Your task to perform on an android device: turn notification dots on Image 0: 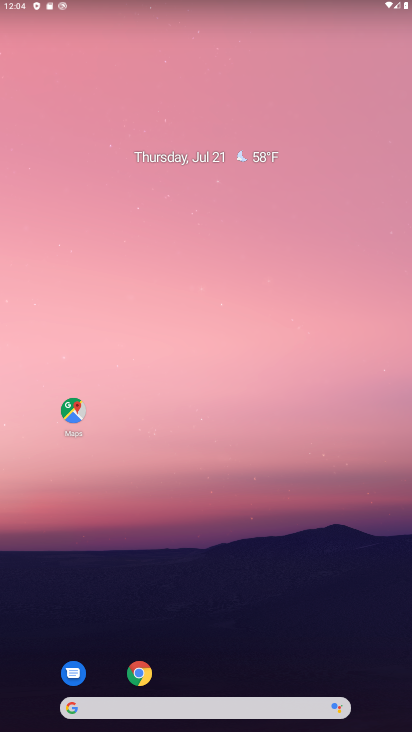
Step 0: drag from (123, 662) to (135, 469)
Your task to perform on an android device: turn notification dots on Image 1: 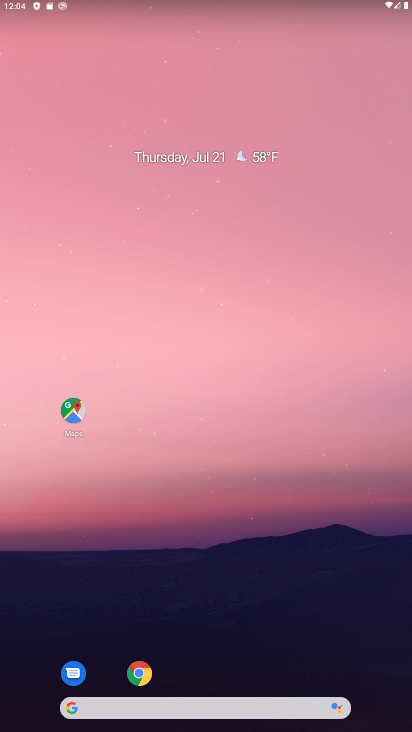
Step 1: drag from (198, 662) to (230, 240)
Your task to perform on an android device: turn notification dots on Image 2: 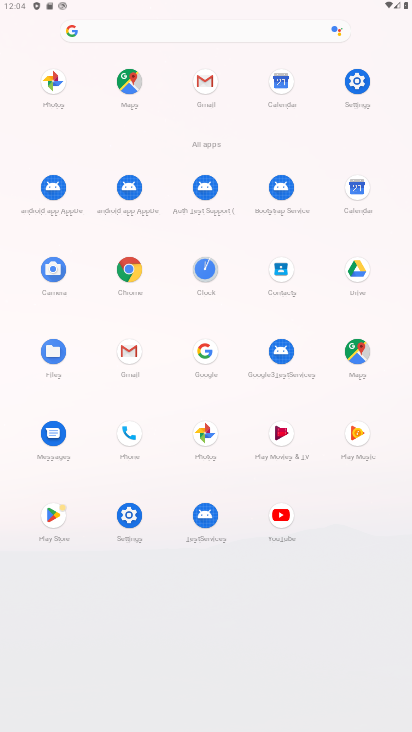
Step 2: click (357, 78)
Your task to perform on an android device: turn notification dots on Image 3: 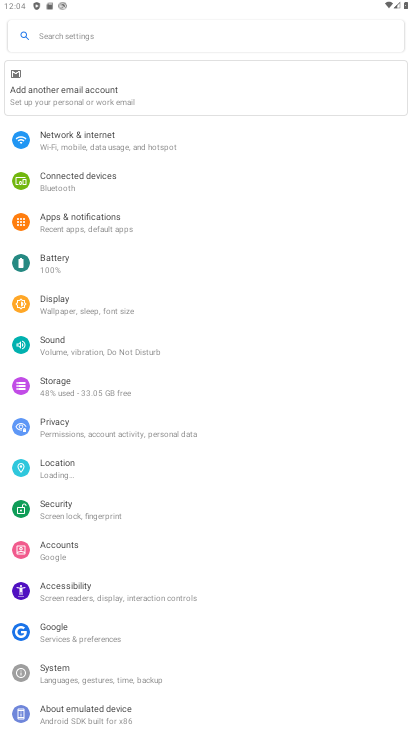
Step 3: click (102, 33)
Your task to perform on an android device: turn notification dots on Image 4: 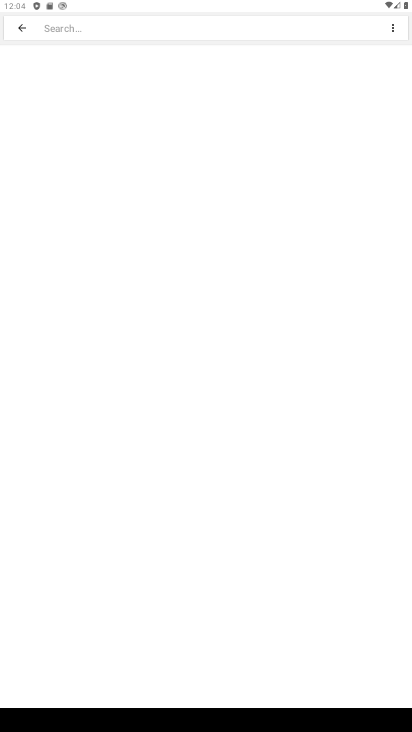
Step 4: type "notification dots "
Your task to perform on an android device: turn notification dots on Image 5: 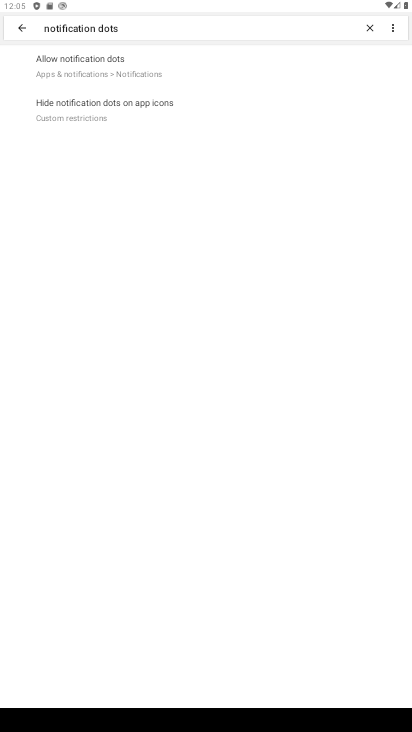
Step 5: click (121, 73)
Your task to perform on an android device: turn notification dots on Image 6: 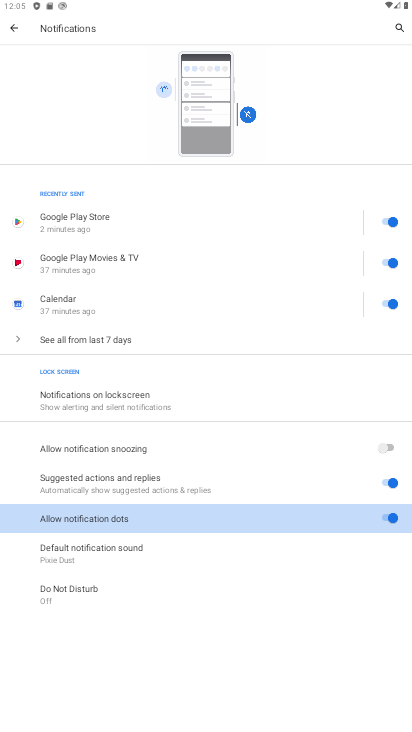
Step 6: task complete